Your task to perform on an android device: Search for energizer triple a on newegg, select the first entry, and add it to the cart. Image 0: 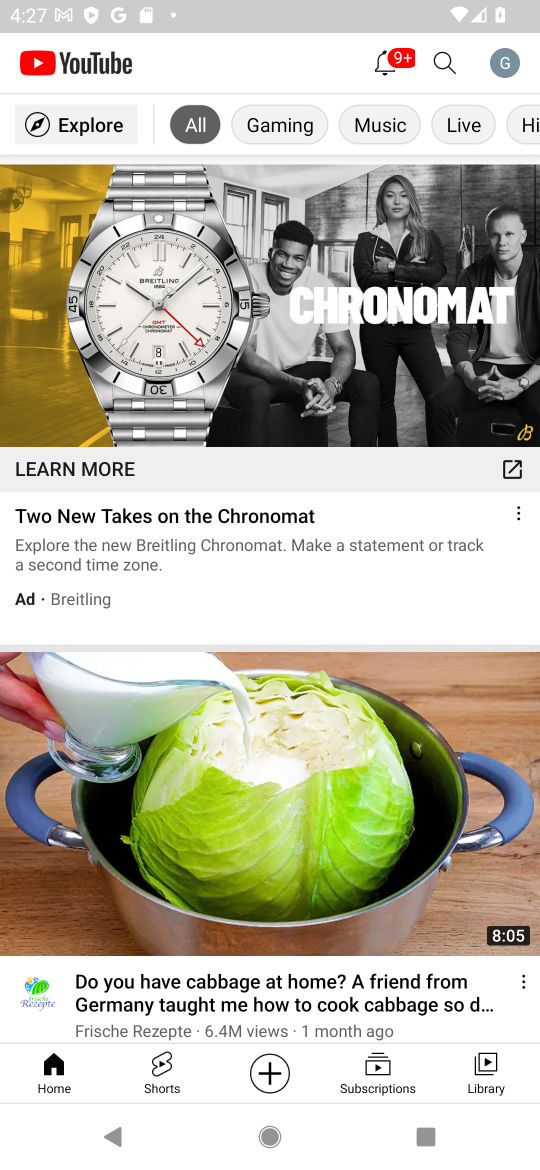
Step 0: press home button
Your task to perform on an android device: Search for energizer triple a on newegg, select the first entry, and add it to the cart. Image 1: 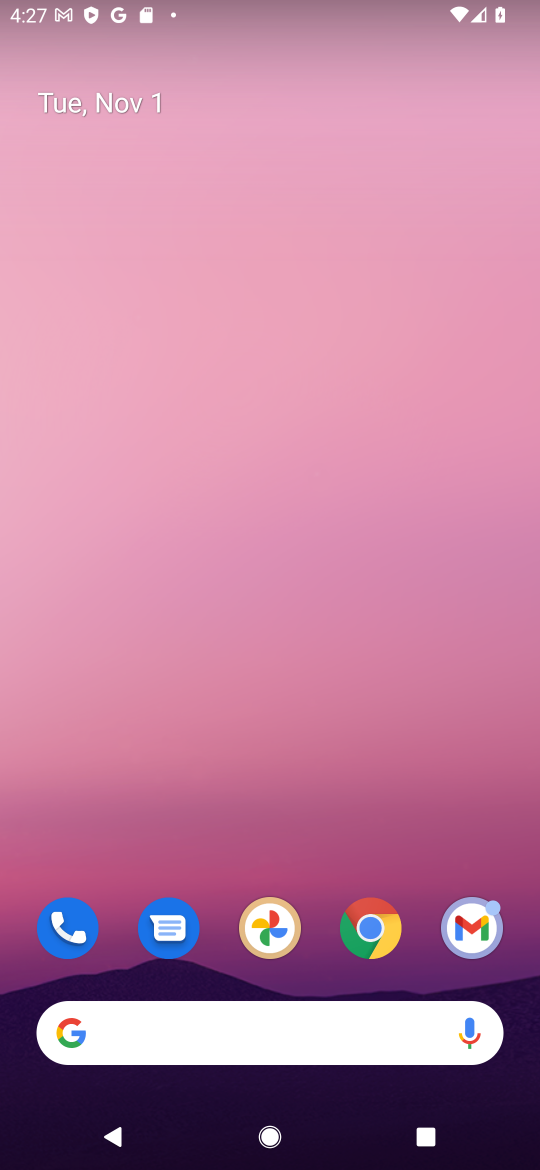
Step 1: click (378, 933)
Your task to perform on an android device: Search for energizer triple a on newegg, select the first entry, and add it to the cart. Image 2: 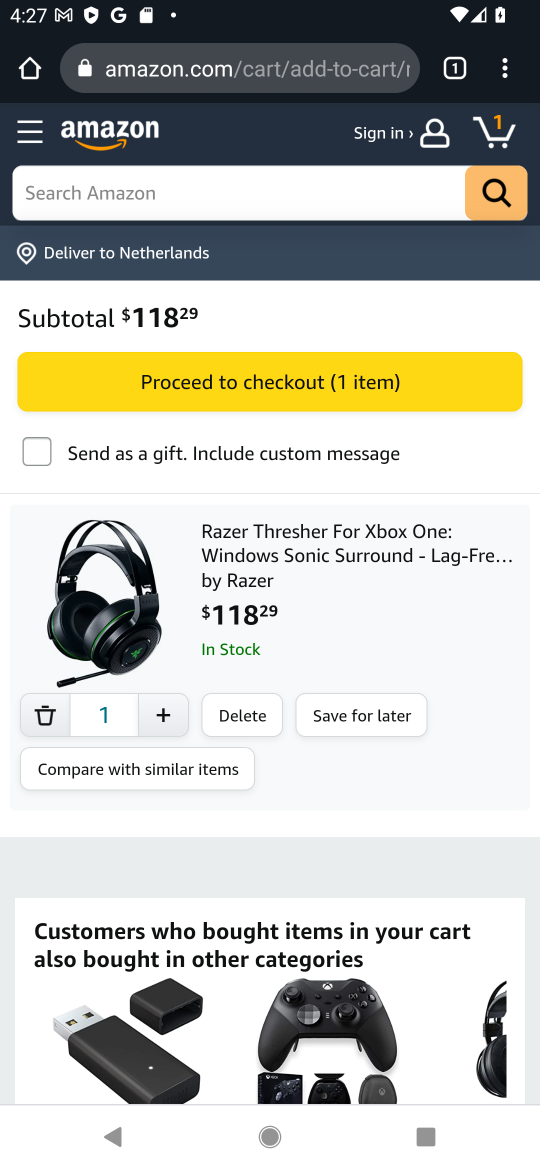
Step 2: click (269, 64)
Your task to perform on an android device: Search for energizer triple a on newegg, select the first entry, and add it to the cart. Image 3: 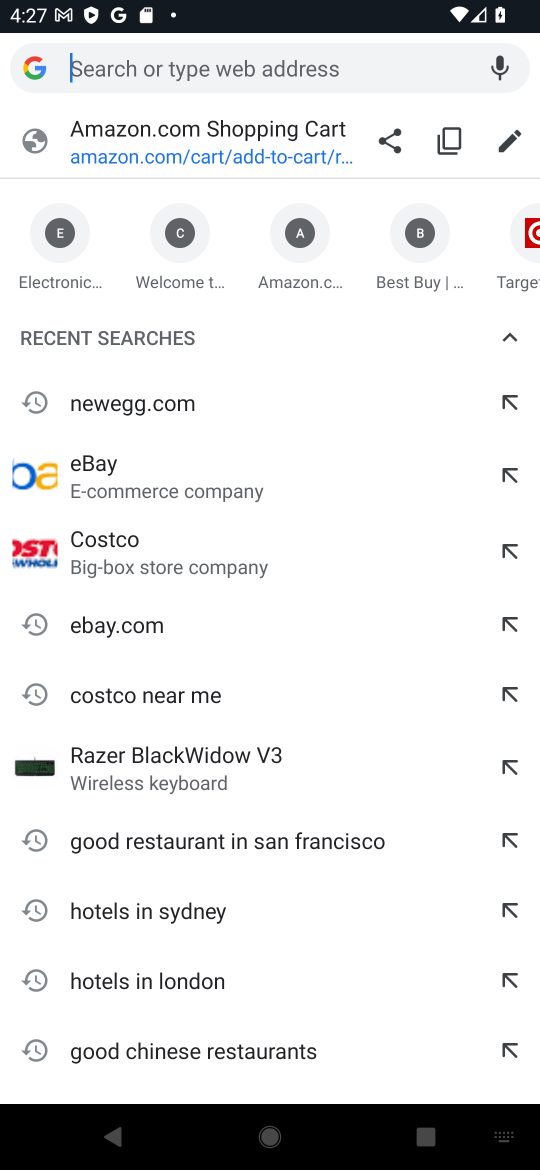
Step 3: type "newegg"
Your task to perform on an android device: Search for energizer triple a on newegg, select the first entry, and add it to the cart. Image 4: 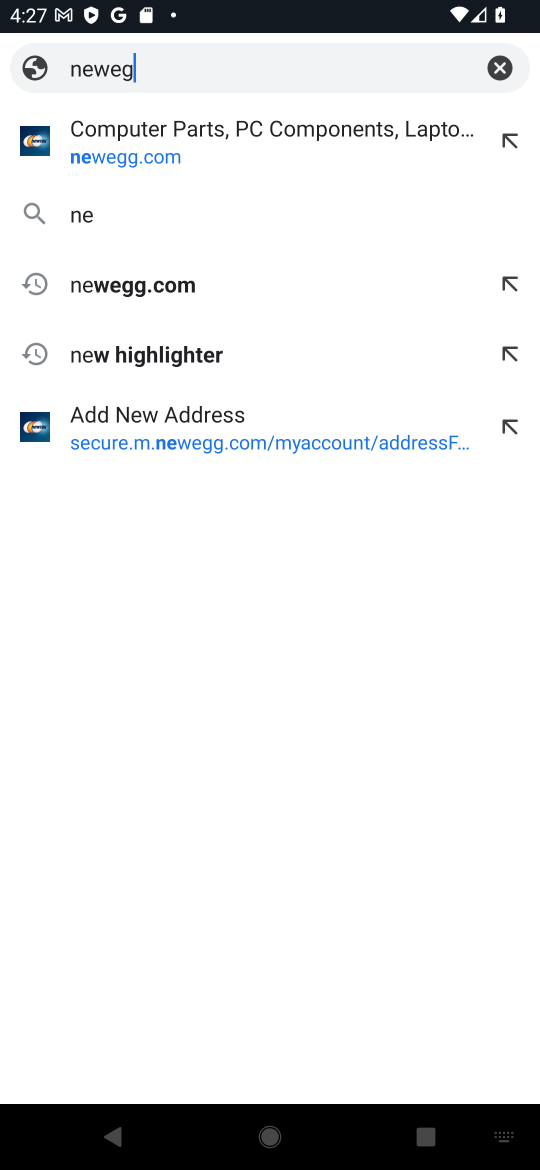
Step 4: type ""
Your task to perform on an android device: Search for energizer triple a on newegg, select the first entry, and add it to the cart. Image 5: 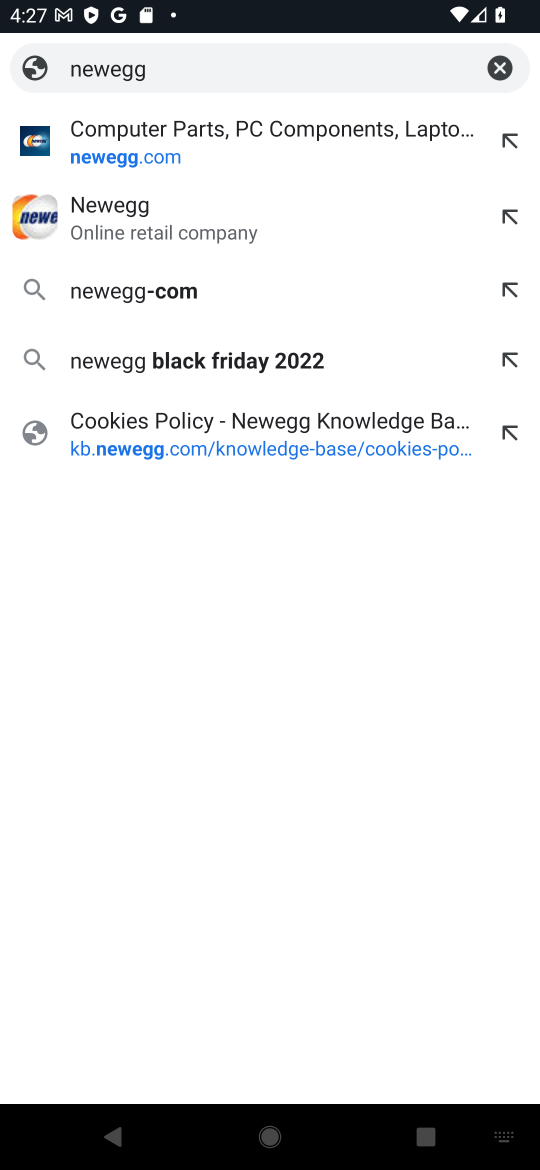
Step 5: press enter
Your task to perform on an android device: Search for energizer triple a on newegg, select the first entry, and add it to the cart. Image 6: 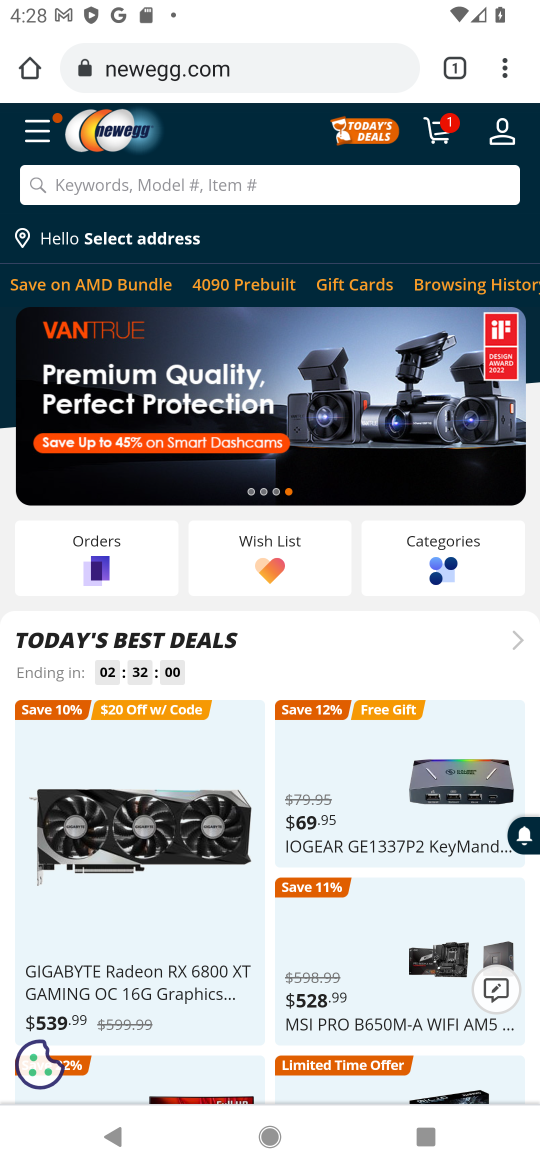
Step 6: click (357, 184)
Your task to perform on an android device: Search for energizer triple a on newegg, select the first entry, and add it to the cart. Image 7: 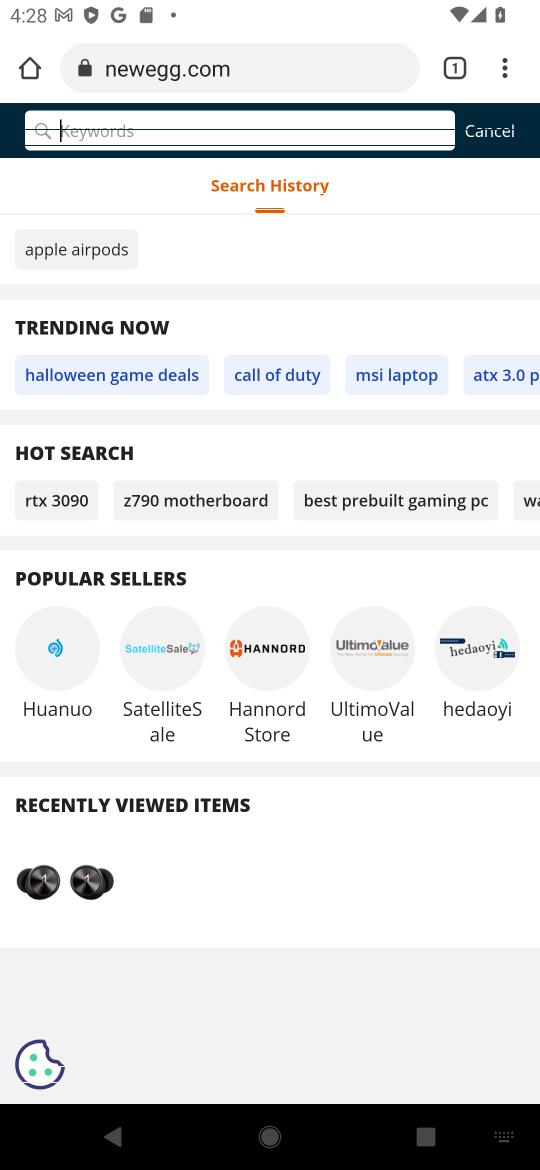
Step 7: type "energizer triple"
Your task to perform on an android device: Search for energizer triple a on newegg, select the first entry, and add it to the cart. Image 8: 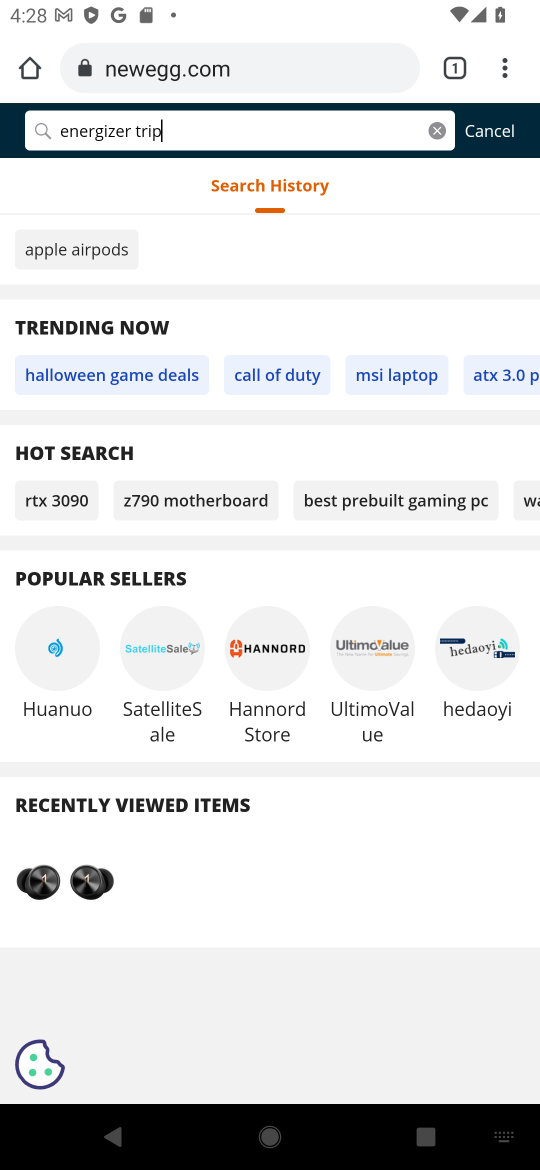
Step 8: type ""
Your task to perform on an android device: Search for energizer triple a on newegg, select the first entry, and add it to the cart. Image 9: 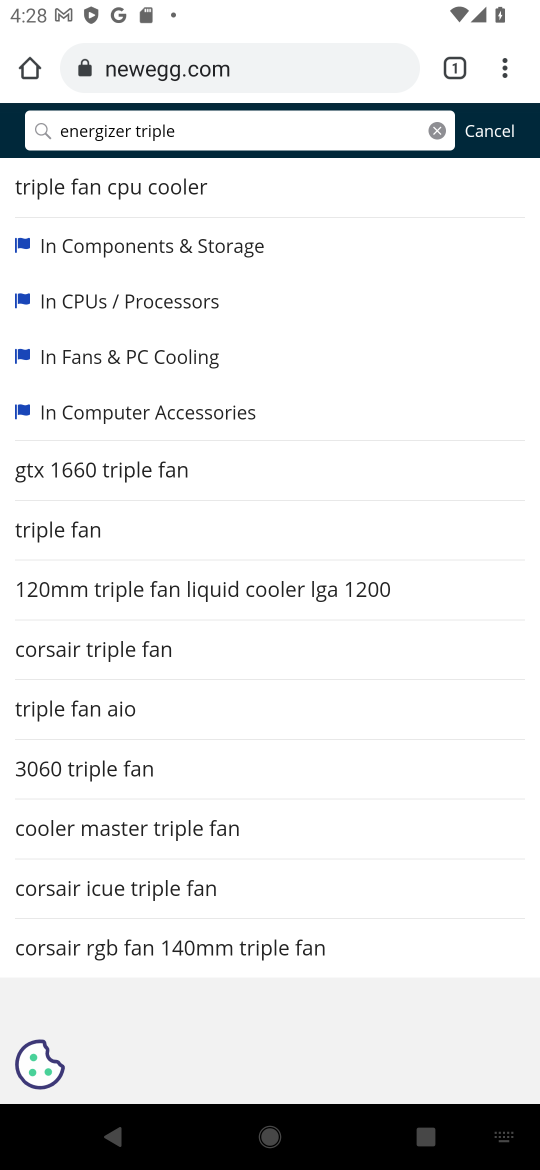
Step 9: press enter
Your task to perform on an android device: Search for energizer triple a on newegg, select the first entry, and add it to the cart. Image 10: 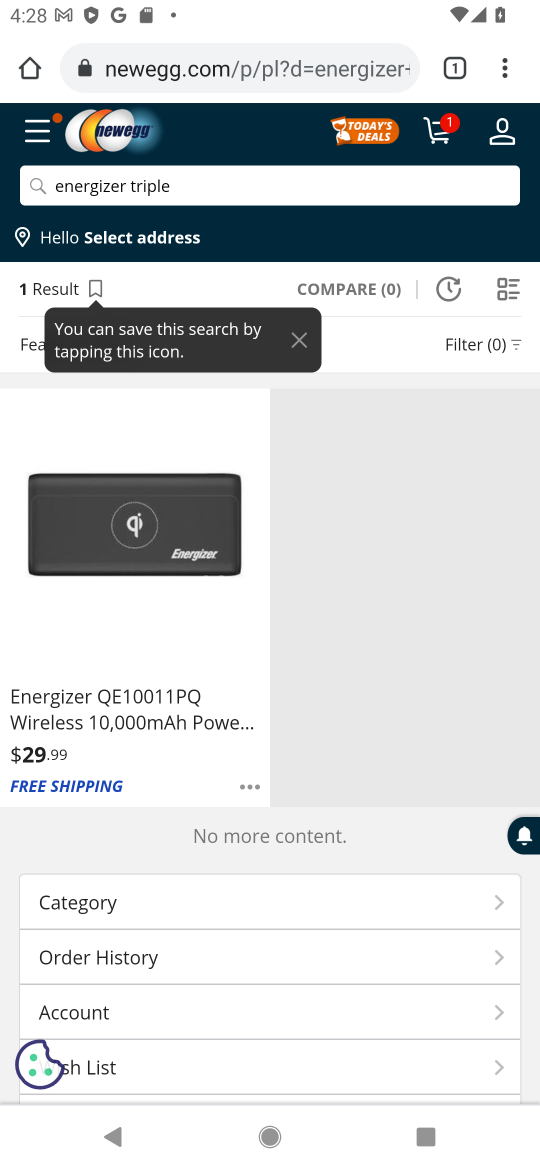
Step 10: click (143, 644)
Your task to perform on an android device: Search for energizer triple a on newegg, select the first entry, and add it to the cart. Image 11: 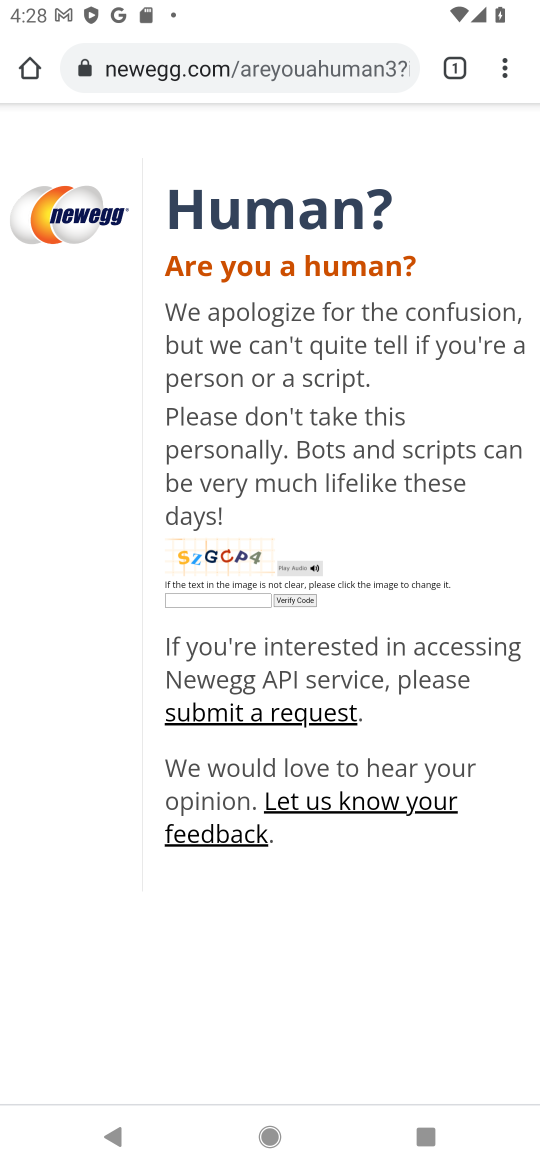
Step 11: click (224, 597)
Your task to perform on an android device: Search for energizer triple a on newegg, select the first entry, and add it to the cart. Image 12: 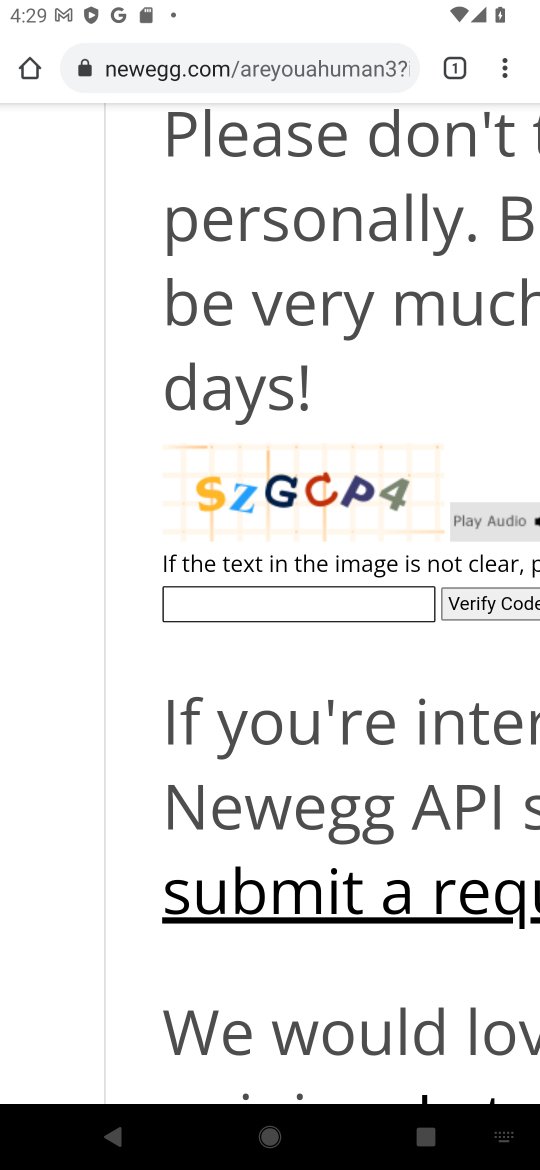
Step 12: type "SZGCP4"
Your task to perform on an android device: Search for energizer triple a on newegg, select the first entry, and add it to the cart. Image 13: 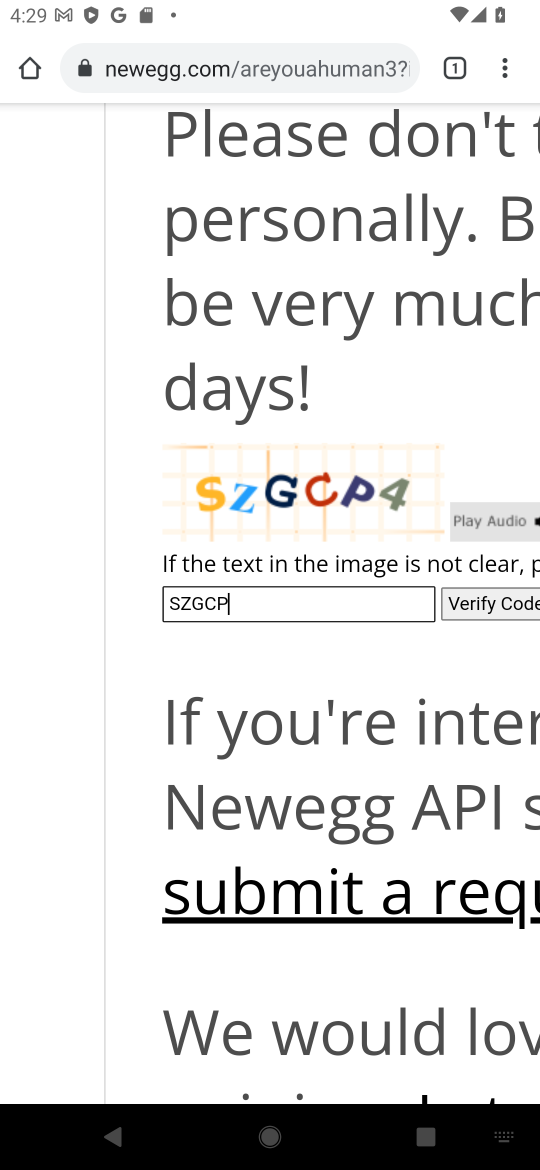
Step 13: type ""
Your task to perform on an android device: Search for energizer triple a on newegg, select the first entry, and add it to the cart. Image 14: 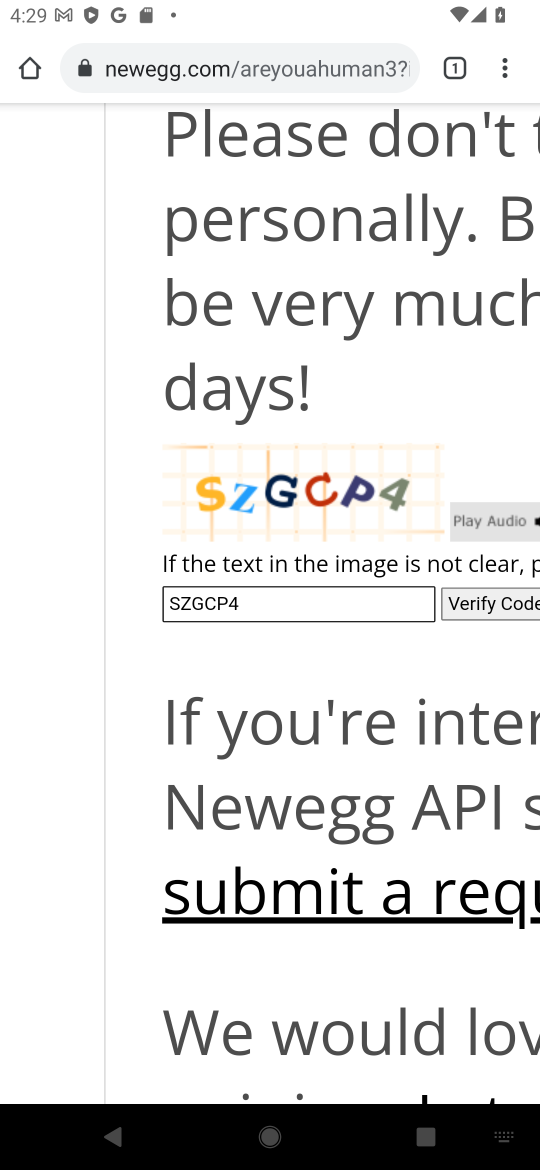
Step 14: click (504, 606)
Your task to perform on an android device: Search for energizer triple a on newegg, select the first entry, and add it to the cart. Image 15: 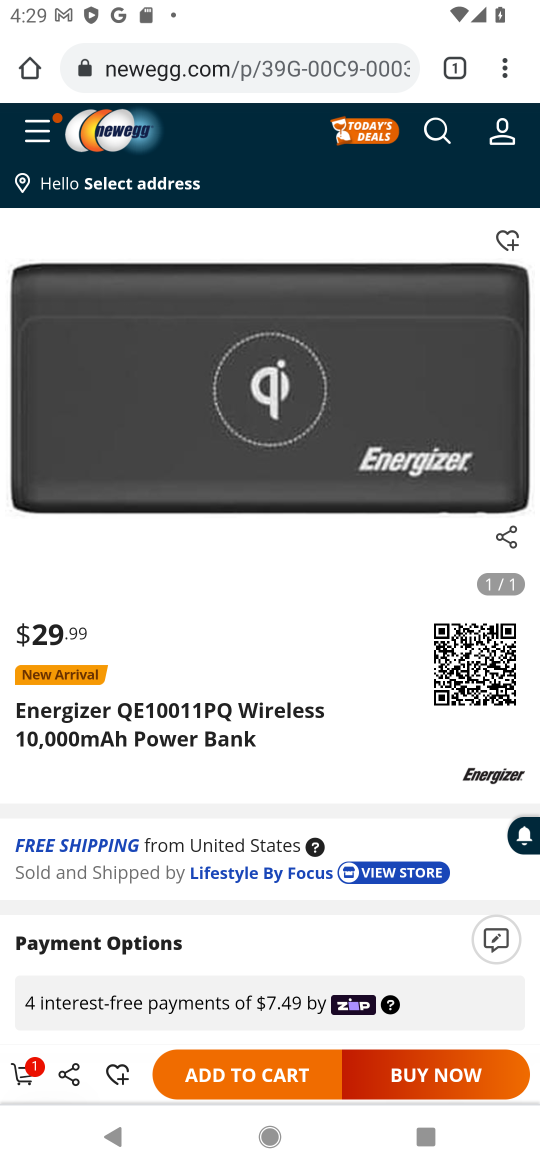
Step 15: drag from (361, 943) to (396, 788)
Your task to perform on an android device: Search for energizer triple a on newegg, select the first entry, and add it to the cart. Image 16: 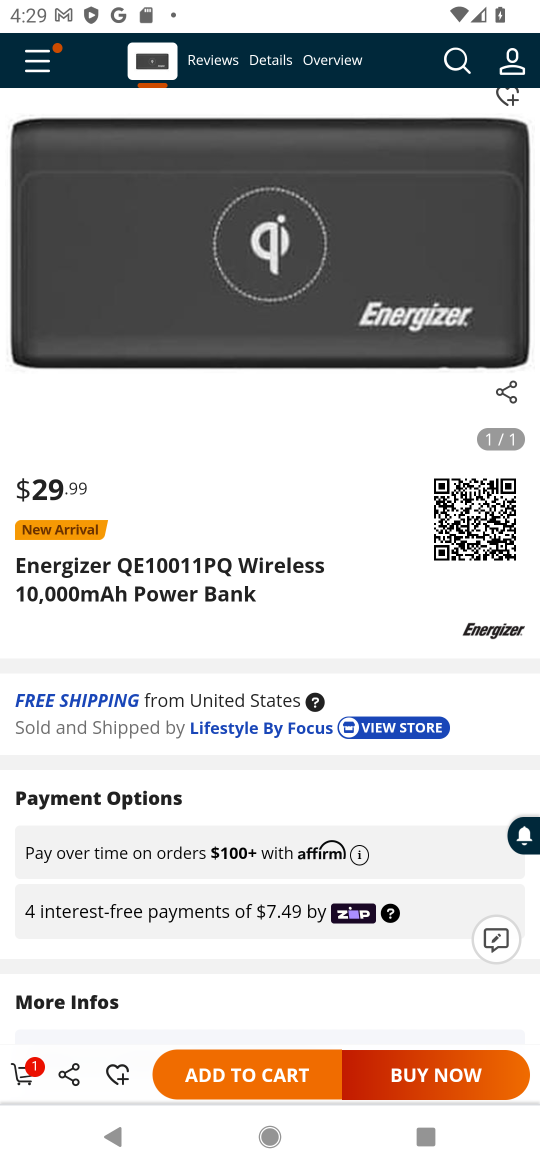
Step 16: click (247, 1070)
Your task to perform on an android device: Search for energizer triple a on newegg, select the first entry, and add it to the cart. Image 17: 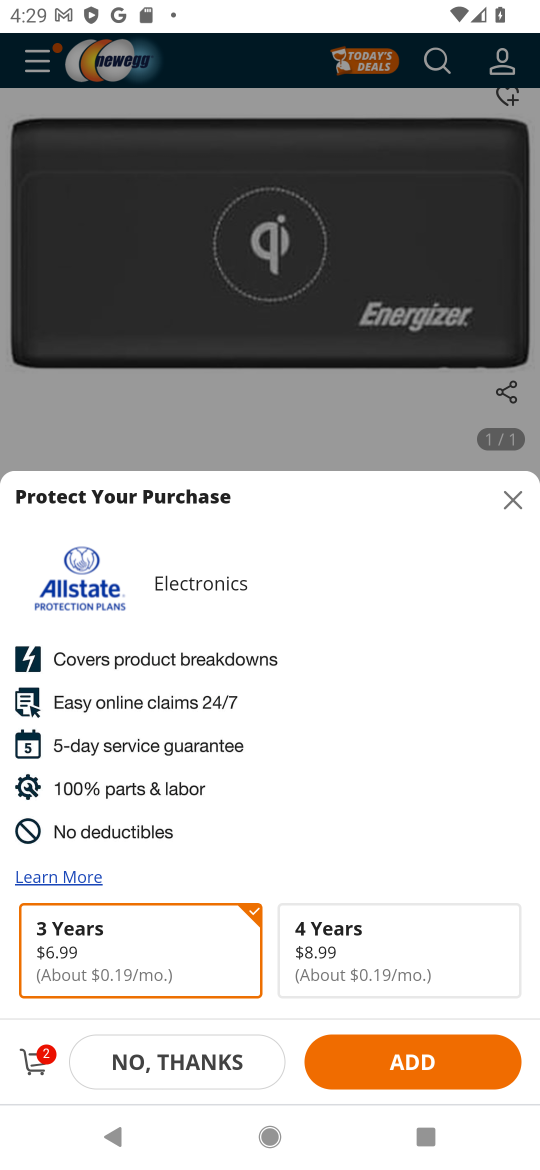
Step 17: click (207, 1062)
Your task to perform on an android device: Search for energizer triple a on newegg, select the first entry, and add it to the cart. Image 18: 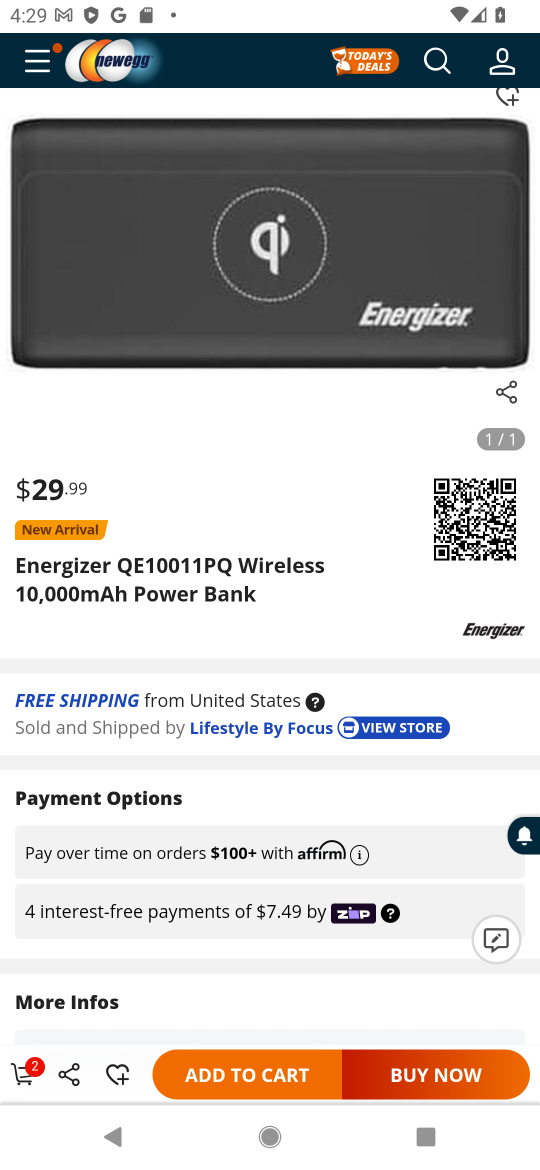
Step 18: task complete